Your task to perform on an android device: uninstall "Google Drive" Image 0: 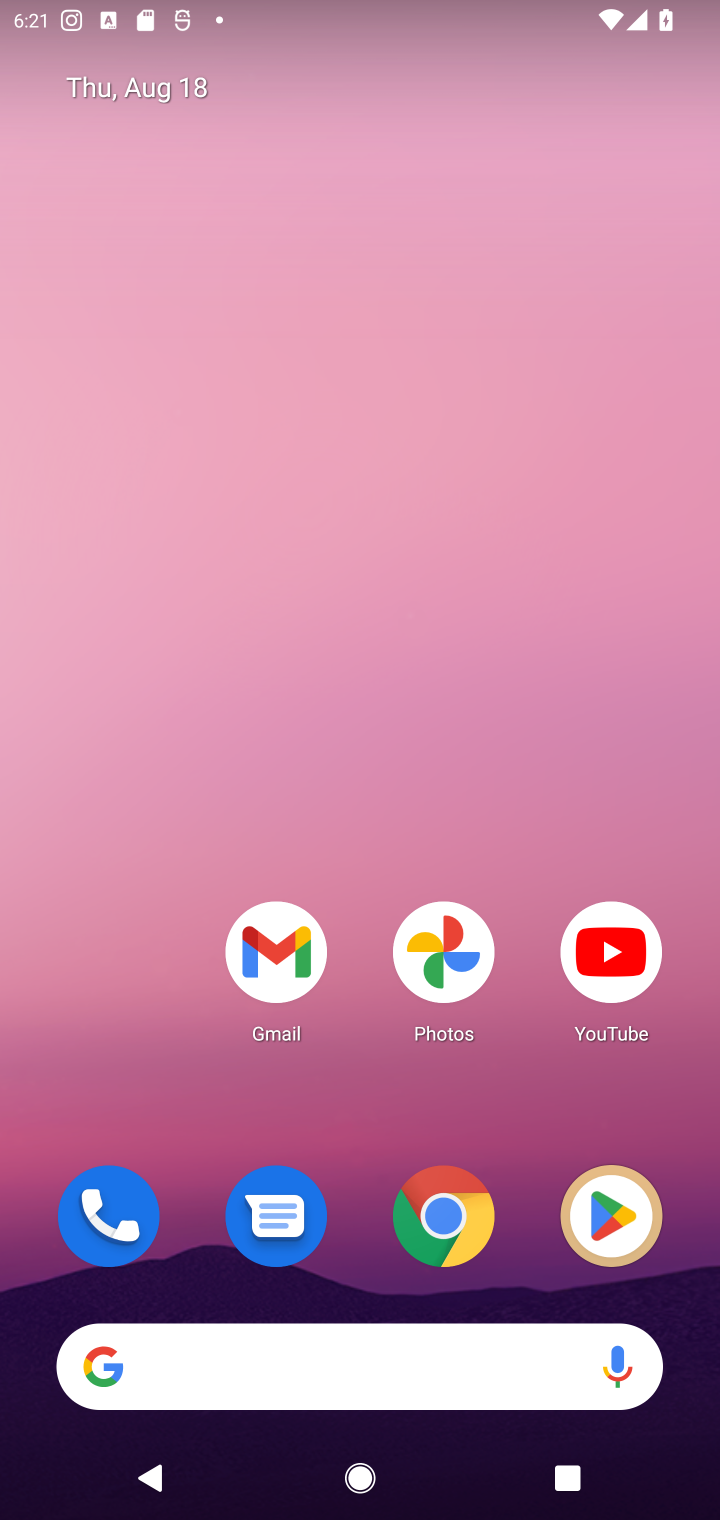
Step 0: click (602, 1186)
Your task to perform on an android device: uninstall "Google Drive" Image 1: 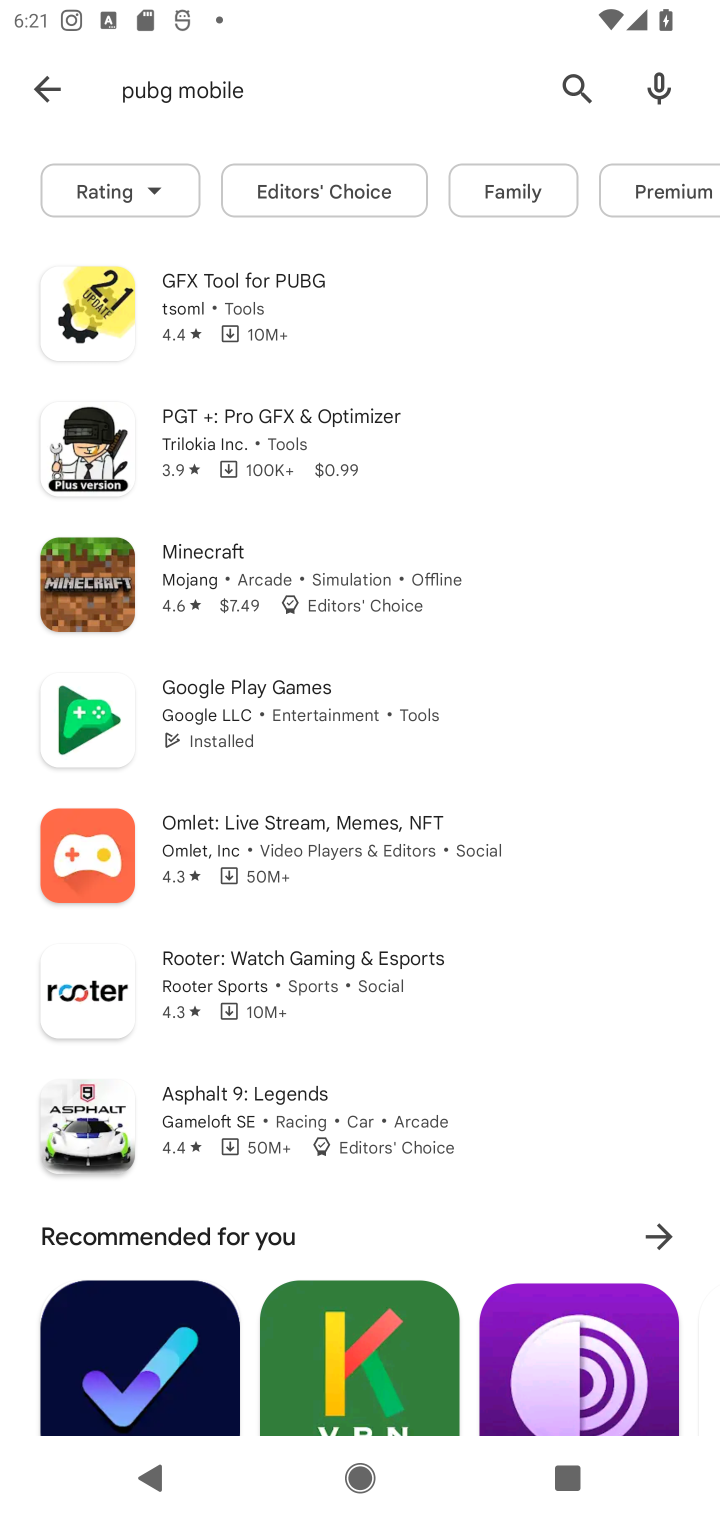
Step 1: click (577, 87)
Your task to perform on an android device: uninstall "Google Drive" Image 2: 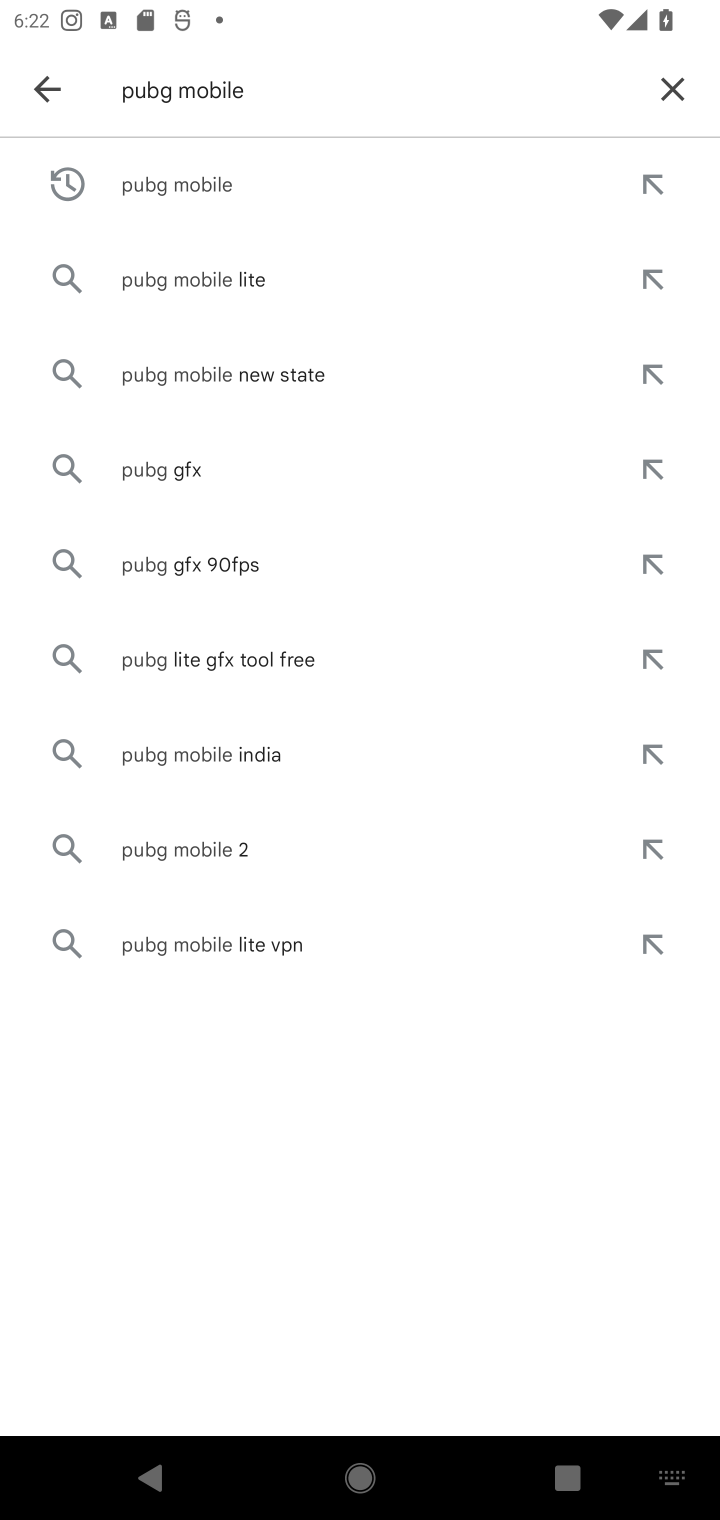
Step 2: click (676, 86)
Your task to perform on an android device: uninstall "Google Drive" Image 3: 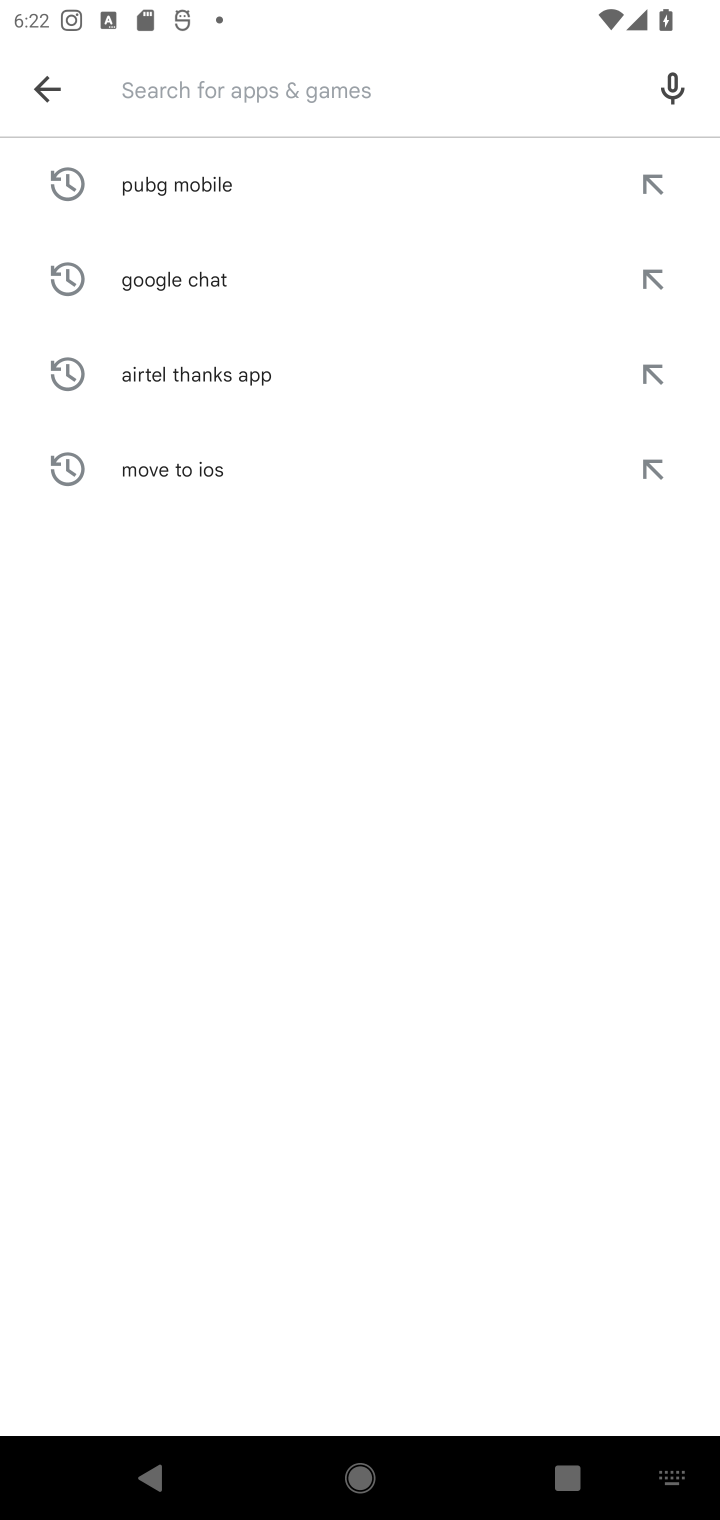
Step 3: type "Google Drive"
Your task to perform on an android device: uninstall "Google Drive" Image 4: 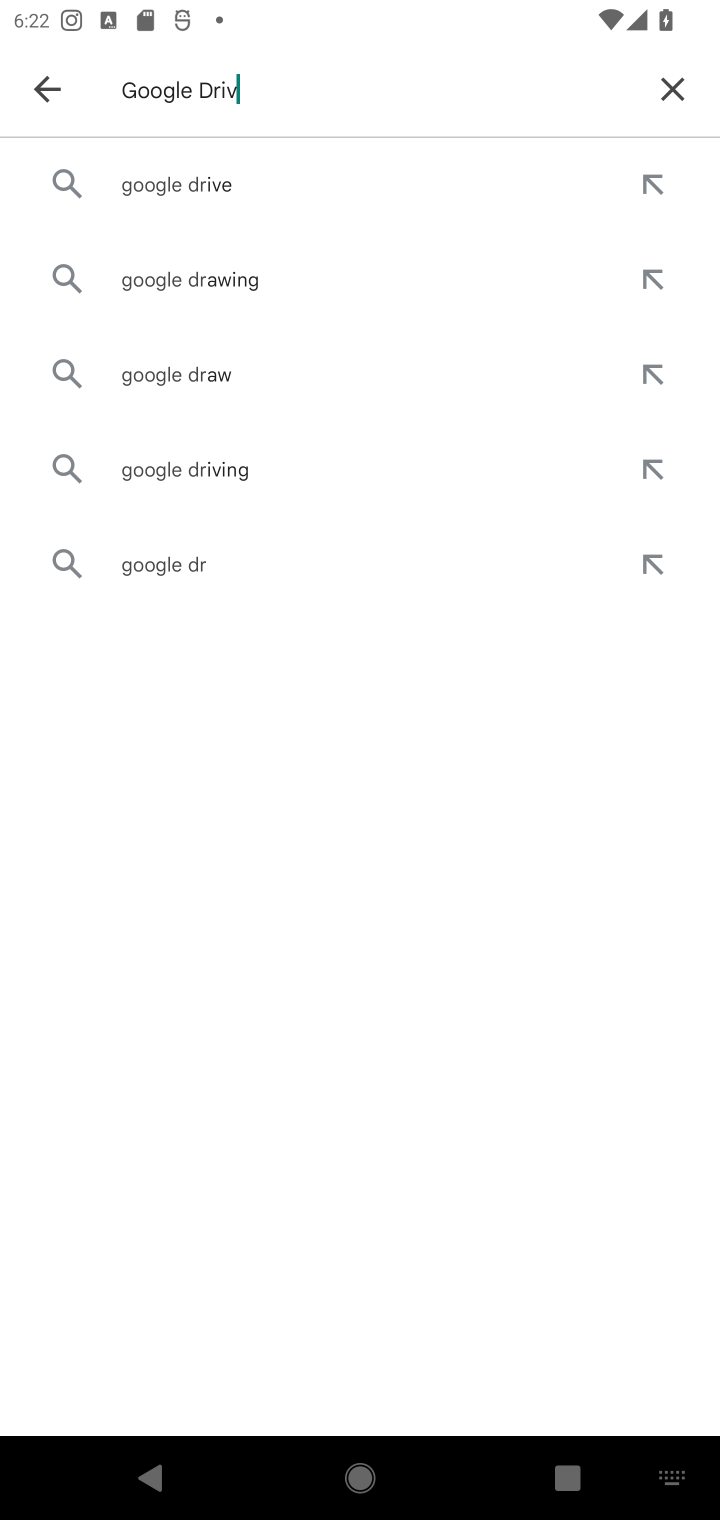
Step 4: type ""
Your task to perform on an android device: uninstall "Google Drive" Image 5: 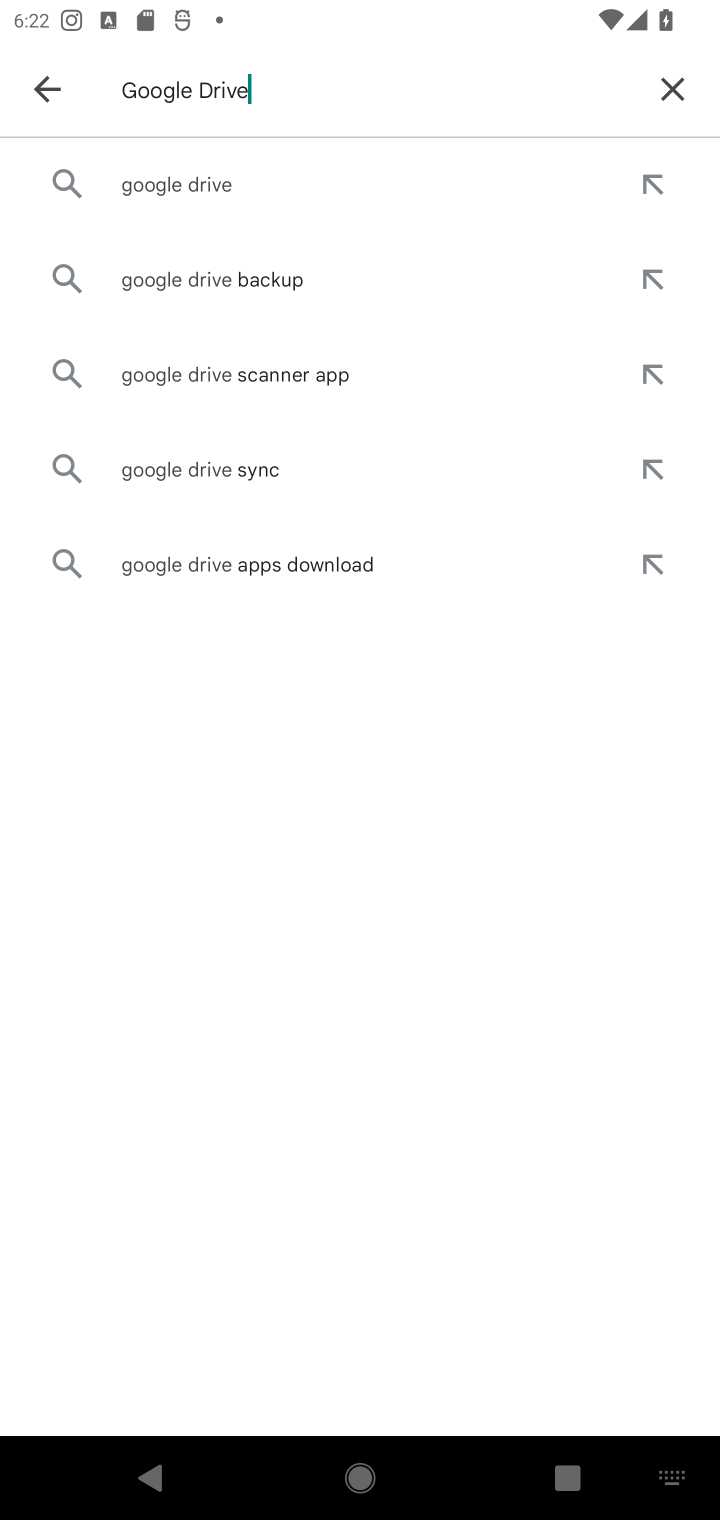
Step 5: click (278, 192)
Your task to perform on an android device: uninstall "Google Drive" Image 6: 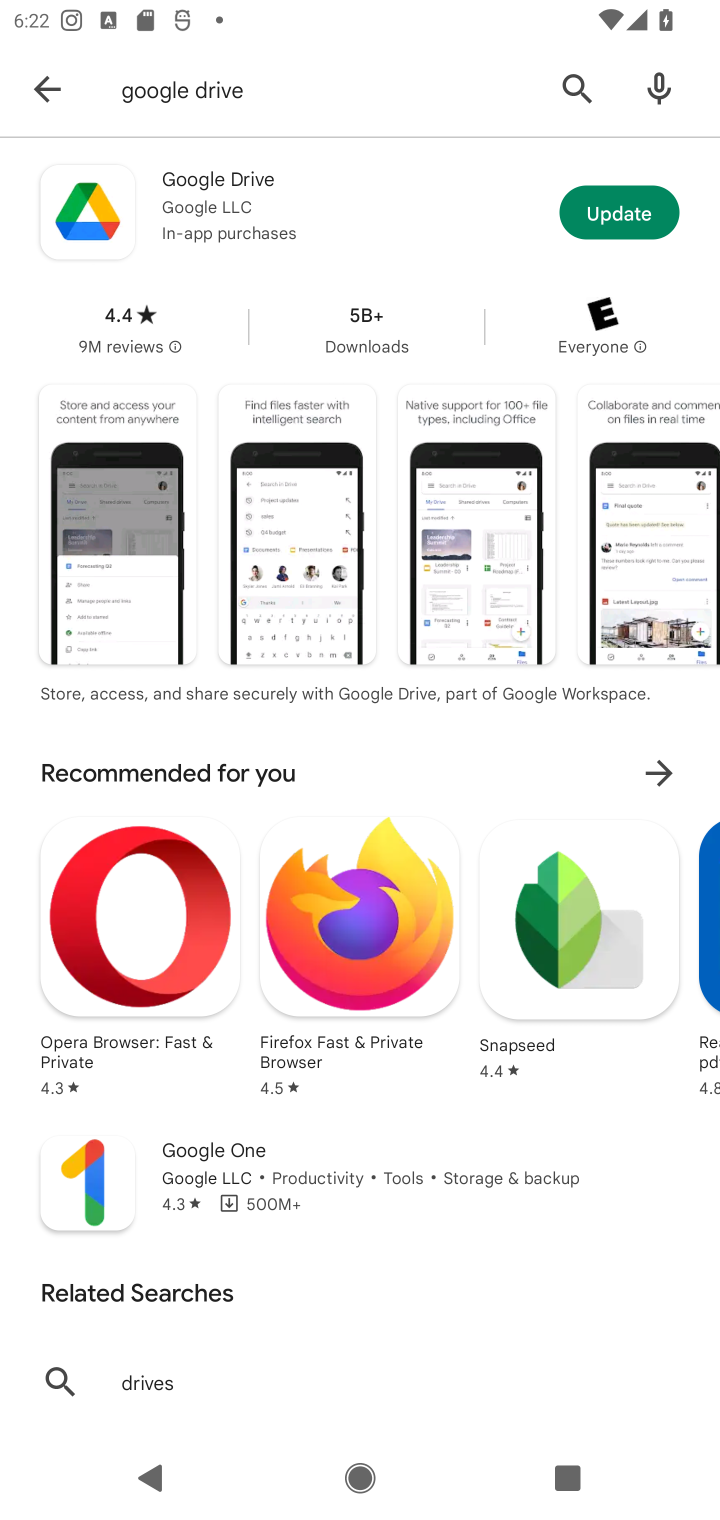
Step 6: click (387, 198)
Your task to perform on an android device: uninstall "Google Drive" Image 7: 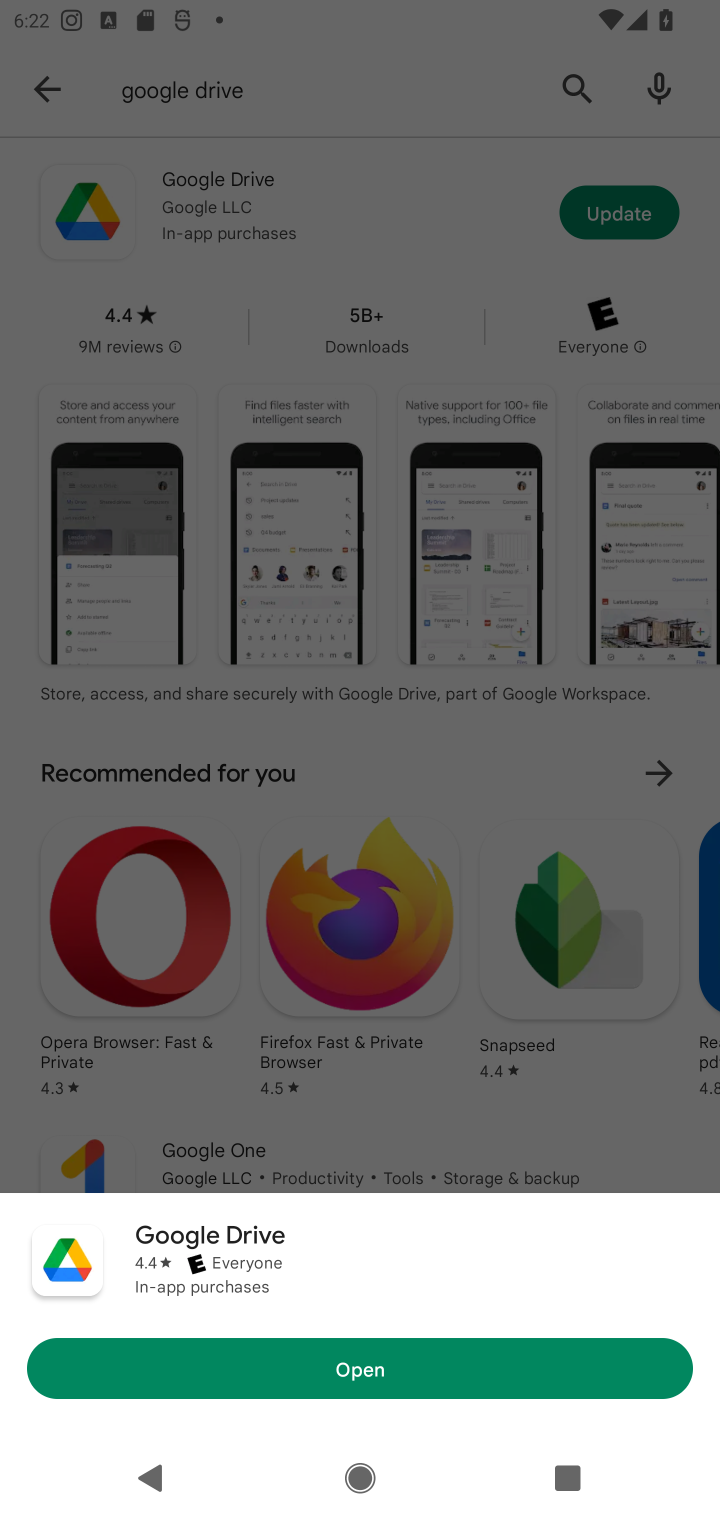
Step 7: click (328, 226)
Your task to perform on an android device: uninstall "Google Drive" Image 8: 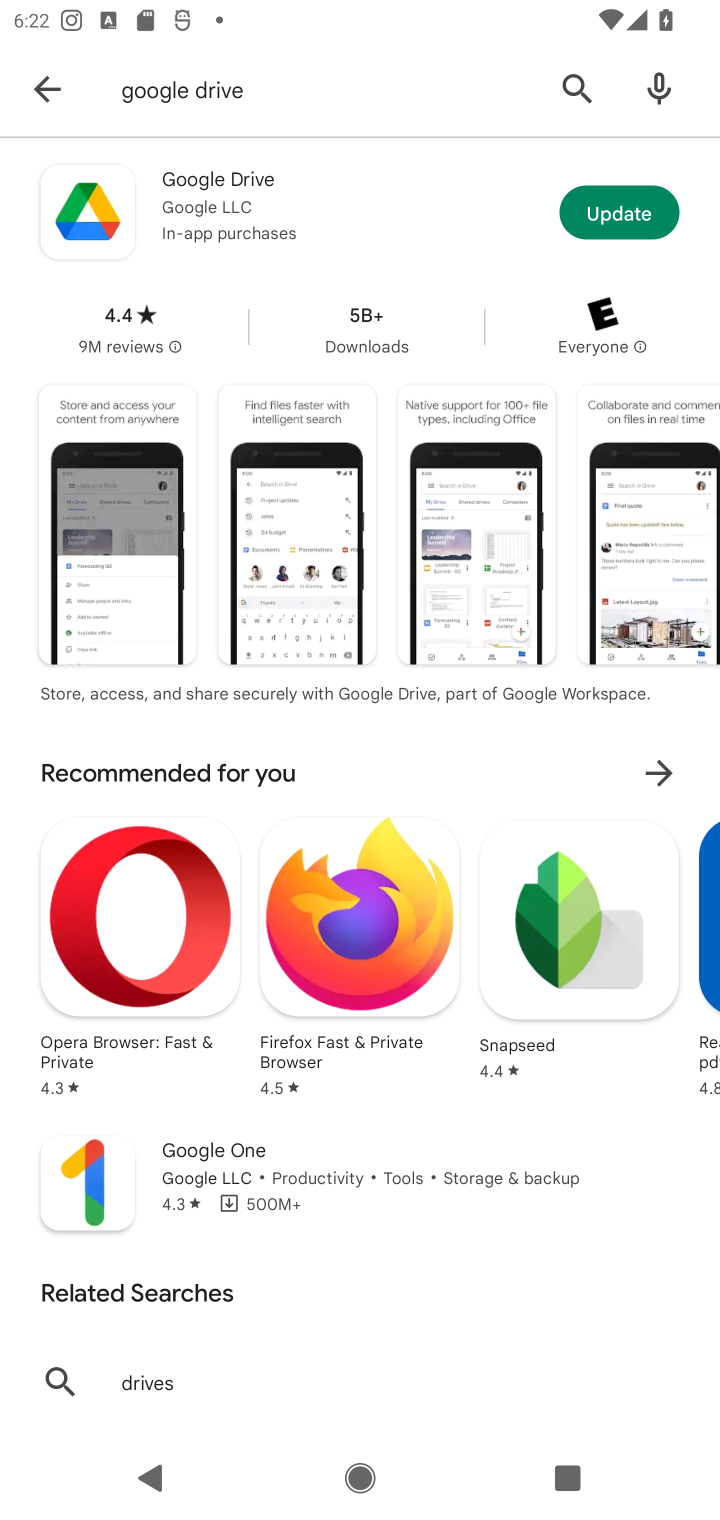
Step 8: click (263, 206)
Your task to perform on an android device: uninstall "Google Drive" Image 9: 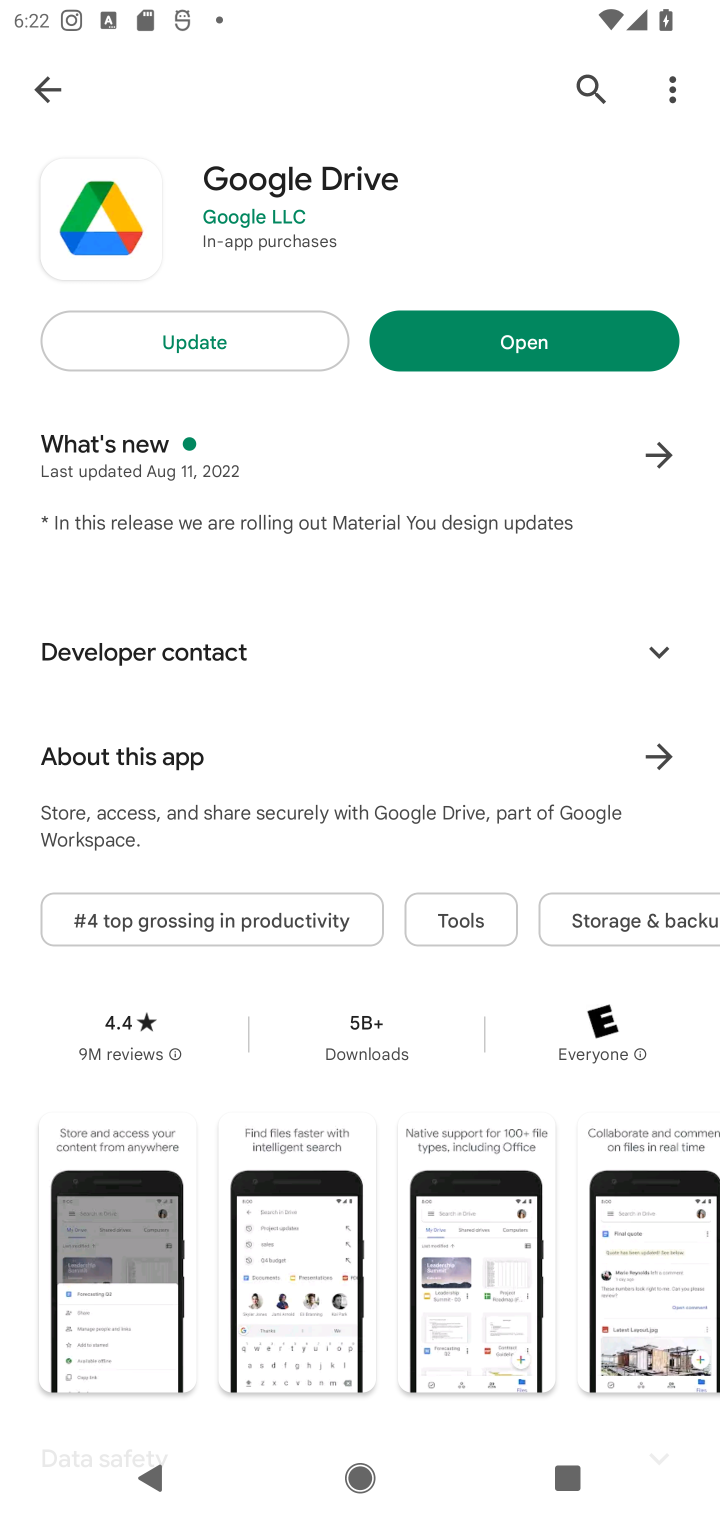
Step 9: click (247, 339)
Your task to perform on an android device: uninstall "Google Drive" Image 10: 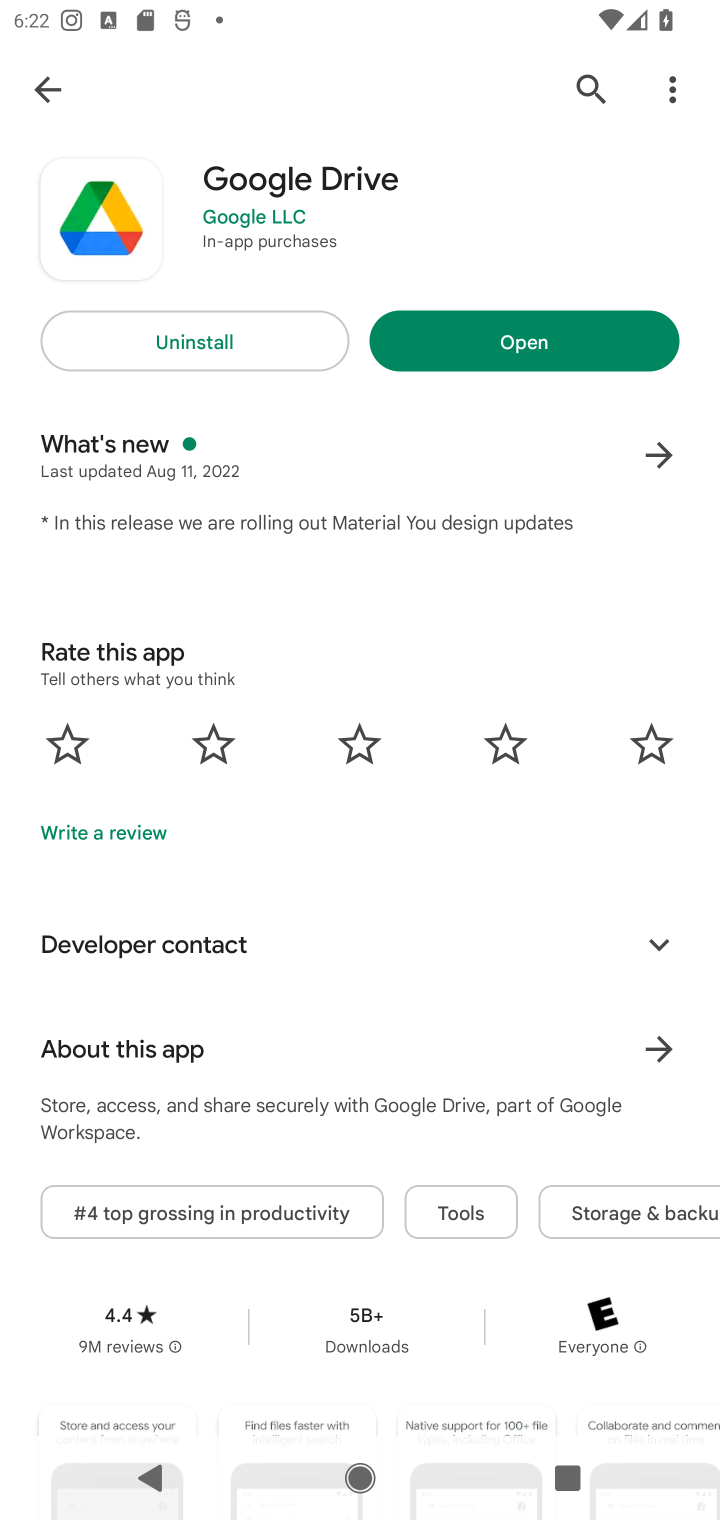
Step 10: click (138, 335)
Your task to perform on an android device: uninstall "Google Drive" Image 11: 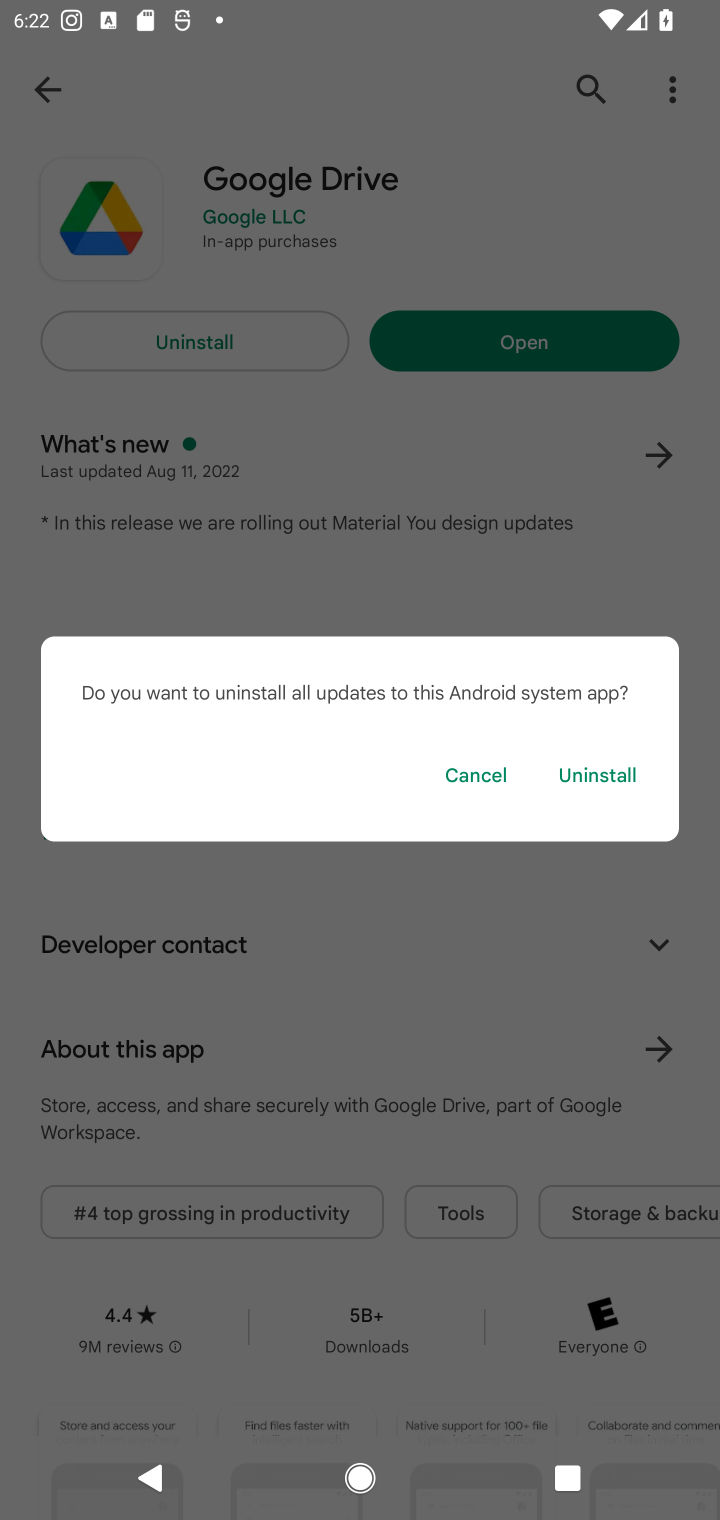
Step 11: click (629, 766)
Your task to perform on an android device: uninstall "Google Drive" Image 12: 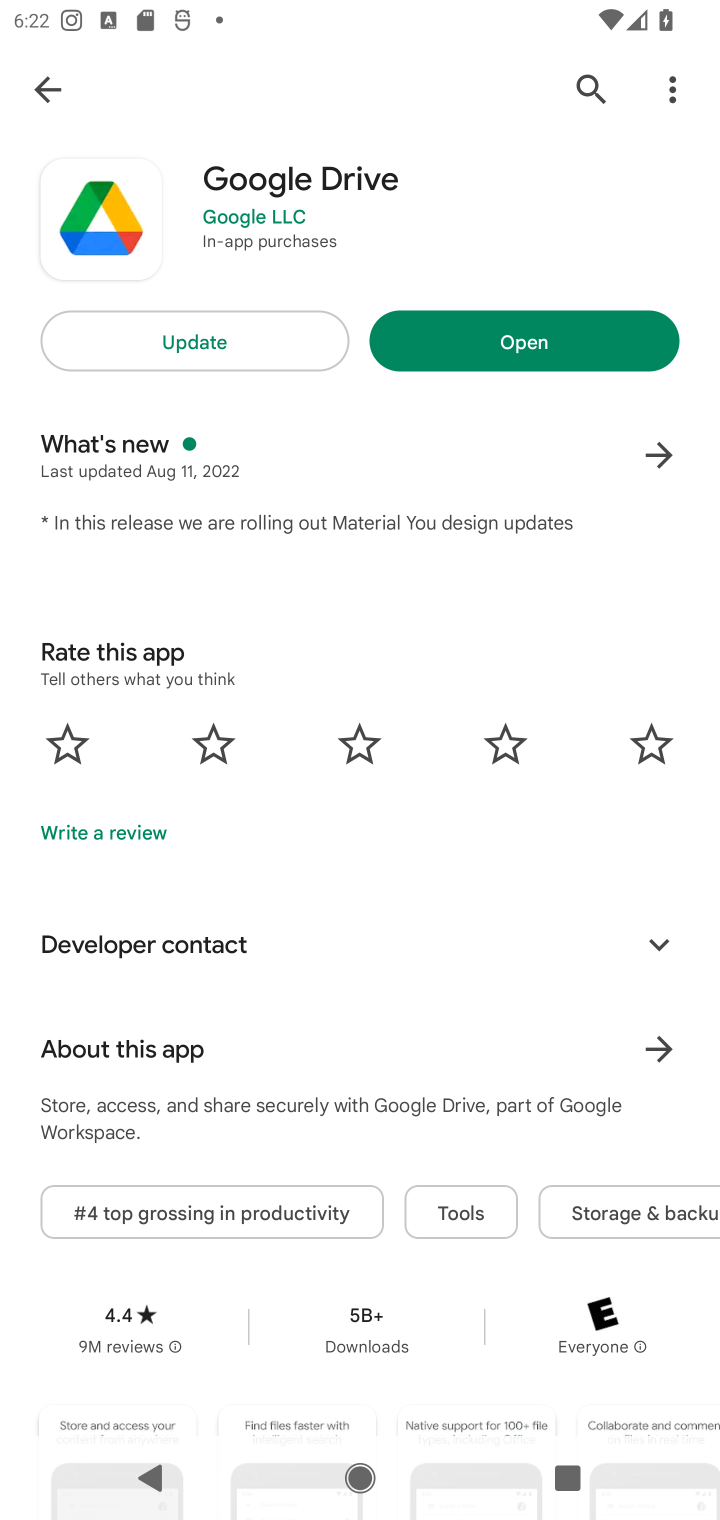
Step 12: task complete